Your task to perform on an android device: Go to calendar. Show me events next week Image 0: 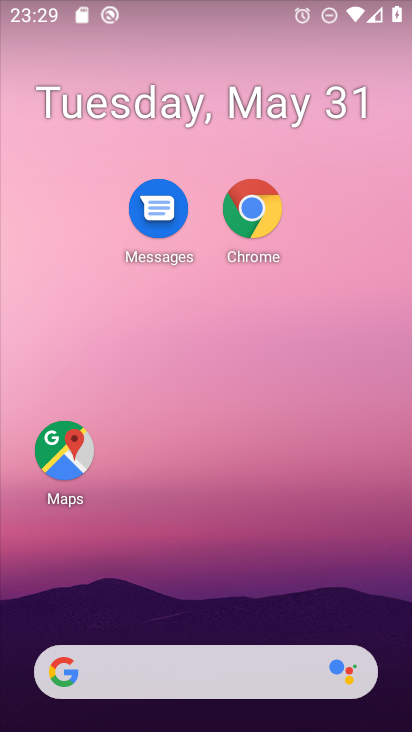
Step 0: press home button
Your task to perform on an android device: Go to calendar. Show me events next week Image 1: 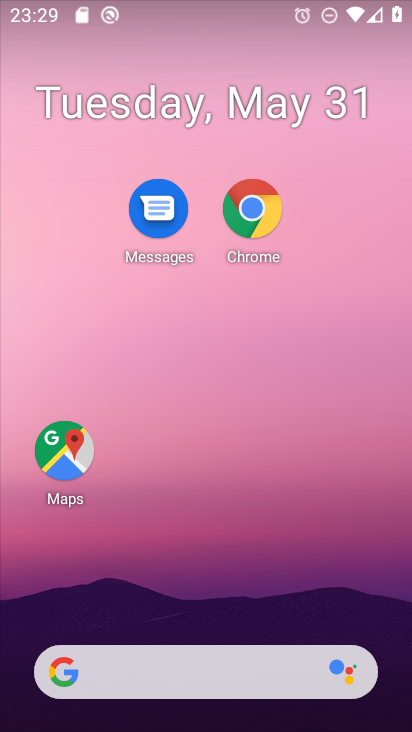
Step 1: drag from (230, 620) to (189, 156)
Your task to perform on an android device: Go to calendar. Show me events next week Image 2: 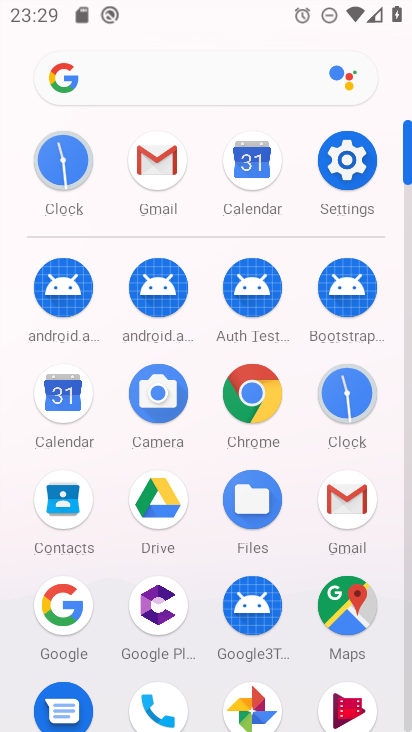
Step 2: click (63, 392)
Your task to perform on an android device: Go to calendar. Show me events next week Image 3: 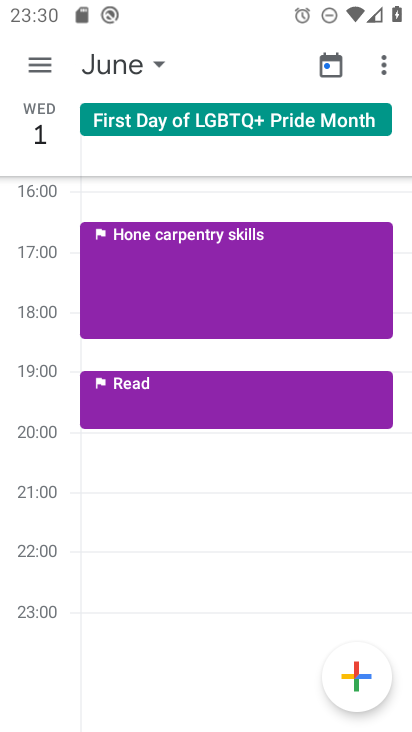
Step 3: click (157, 61)
Your task to perform on an android device: Go to calendar. Show me events next week Image 4: 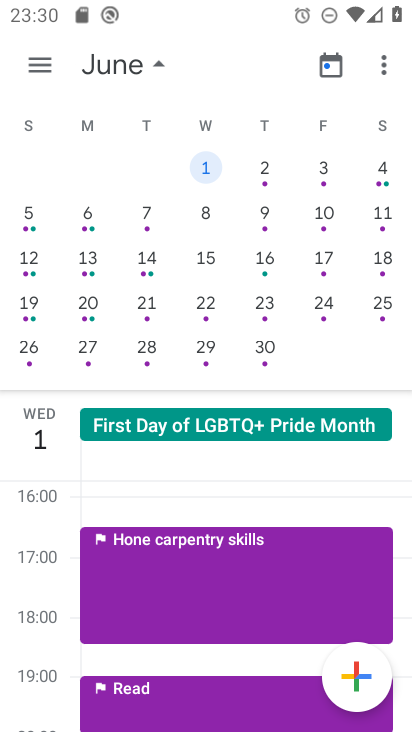
Step 4: click (26, 212)
Your task to perform on an android device: Go to calendar. Show me events next week Image 5: 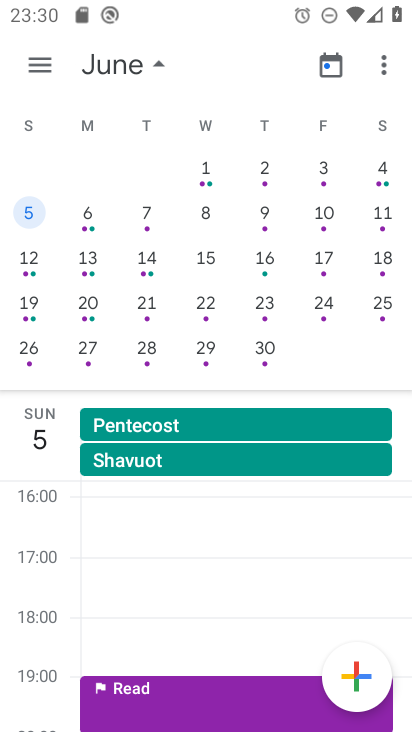
Step 5: click (158, 60)
Your task to perform on an android device: Go to calendar. Show me events next week Image 6: 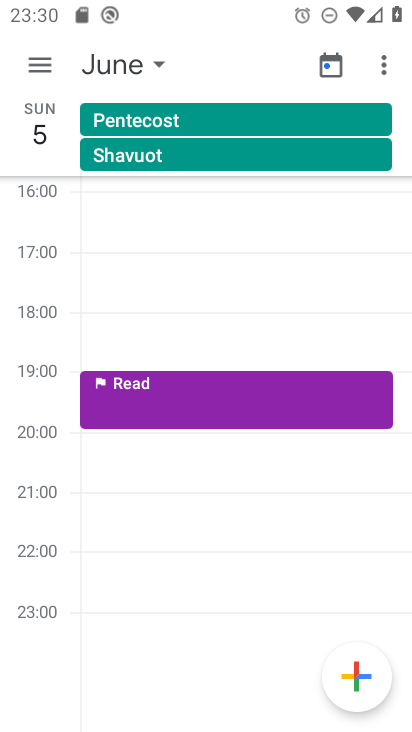
Step 6: click (59, 142)
Your task to perform on an android device: Go to calendar. Show me events next week Image 7: 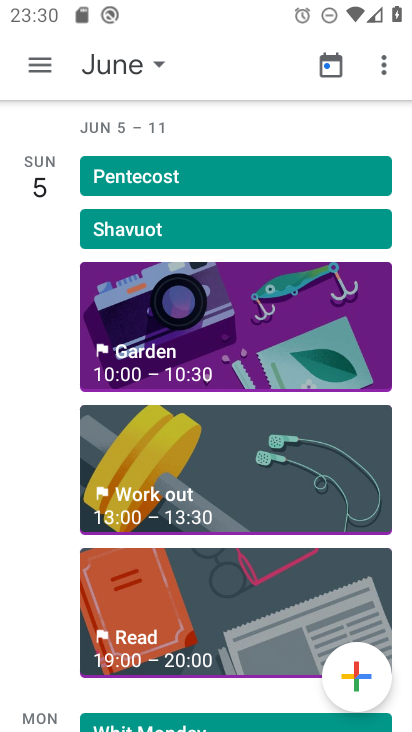
Step 7: task complete